Your task to perform on an android device: Set the phone to "Do not disturb". Image 0: 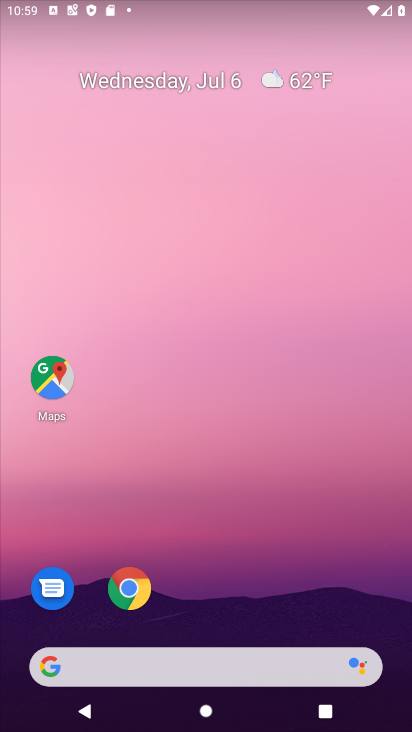
Step 0: drag from (373, 619) to (300, 102)
Your task to perform on an android device: Set the phone to "Do not disturb". Image 1: 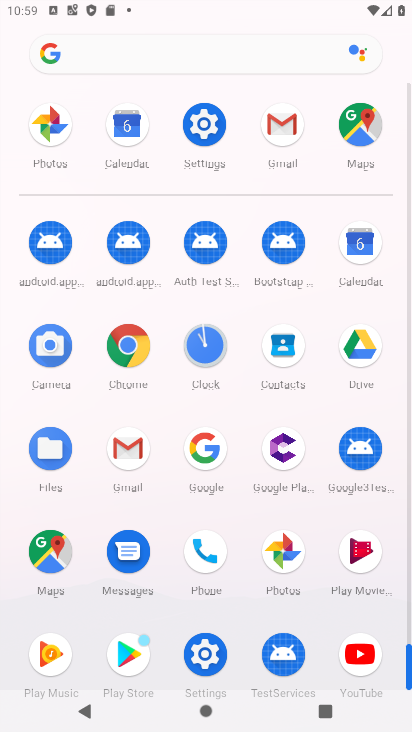
Step 1: click (203, 652)
Your task to perform on an android device: Set the phone to "Do not disturb". Image 2: 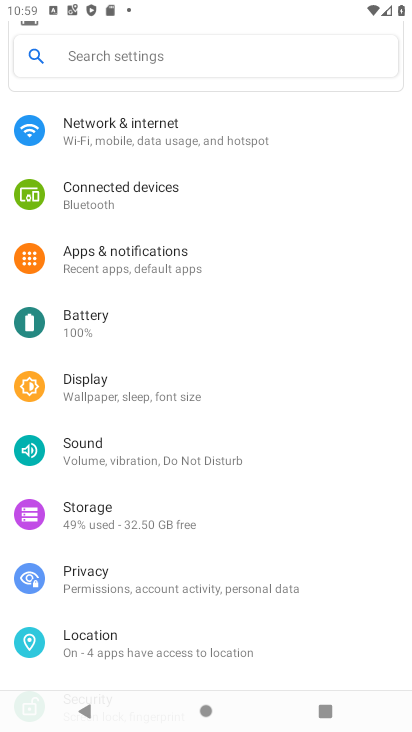
Step 2: click (88, 449)
Your task to perform on an android device: Set the phone to "Do not disturb". Image 3: 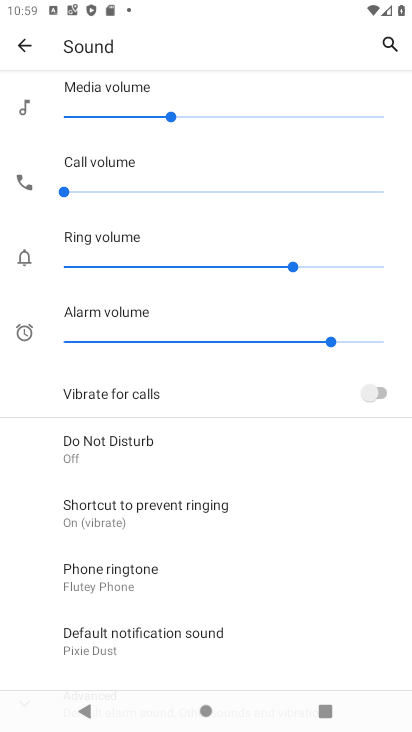
Step 3: click (83, 444)
Your task to perform on an android device: Set the phone to "Do not disturb". Image 4: 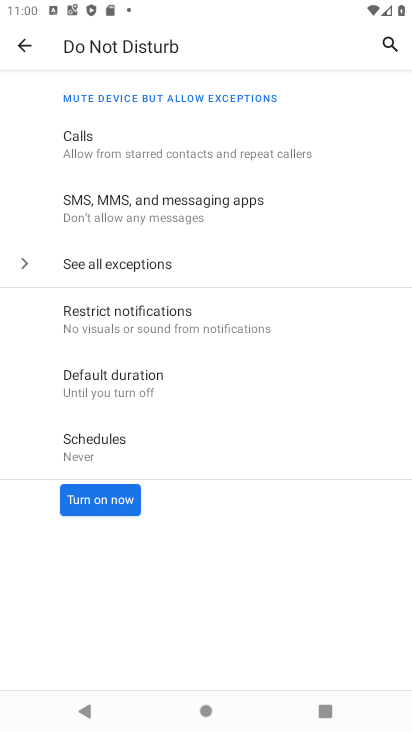
Step 4: click (94, 506)
Your task to perform on an android device: Set the phone to "Do not disturb". Image 5: 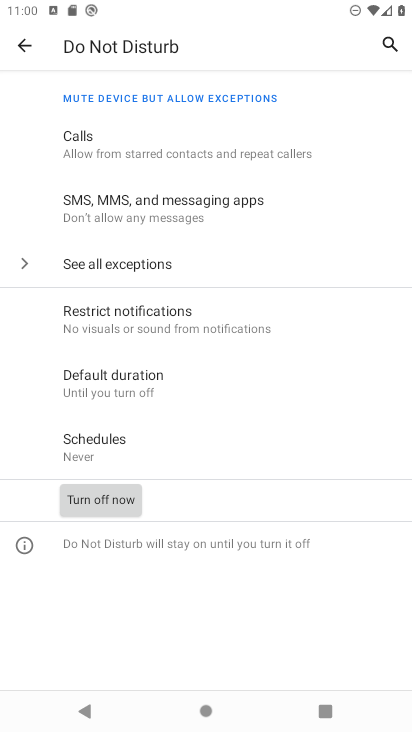
Step 5: task complete